Your task to perform on an android device: Open Amazon Image 0: 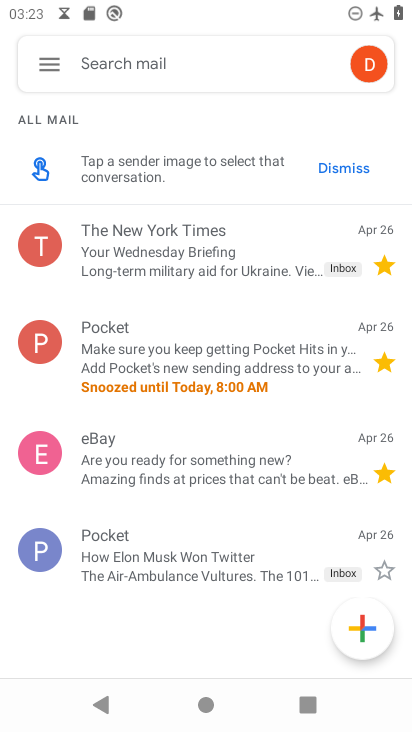
Step 0: press home button
Your task to perform on an android device: Open Amazon Image 1: 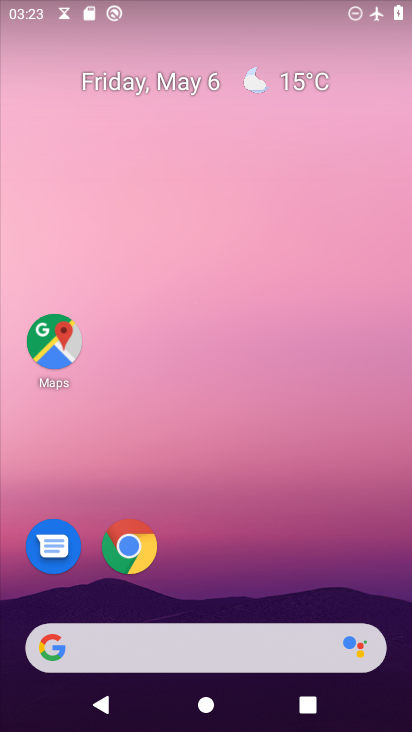
Step 1: click (137, 545)
Your task to perform on an android device: Open Amazon Image 2: 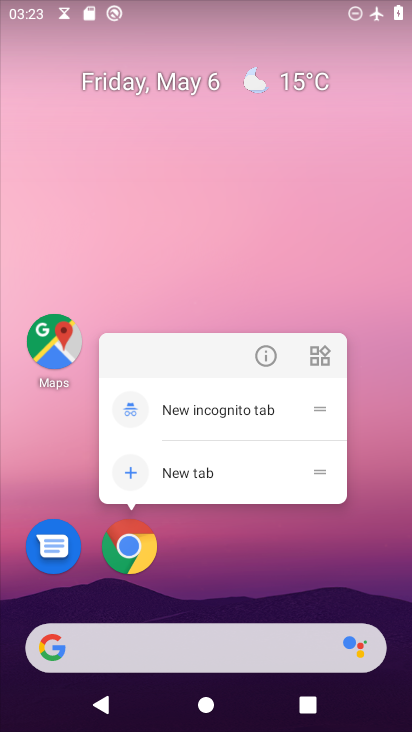
Step 2: click (137, 568)
Your task to perform on an android device: Open Amazon Image 3: 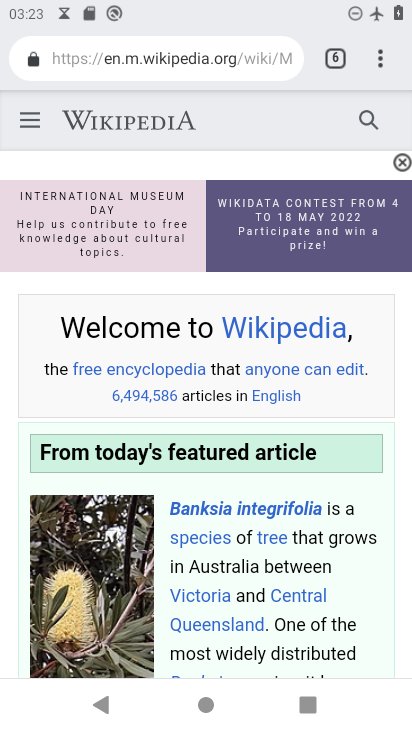
Step 3: click (349, 65)
Your task to perform on an android device: Open Amazon Image 4: 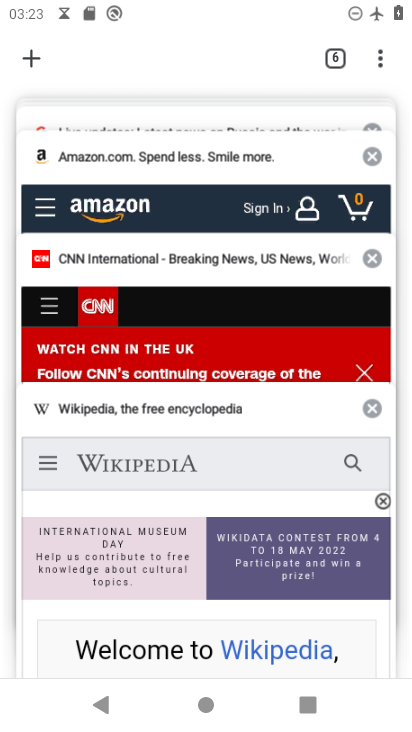
Step 4: click (211, 157)
Your task to perform on an android device: Open Amazon Image 5: 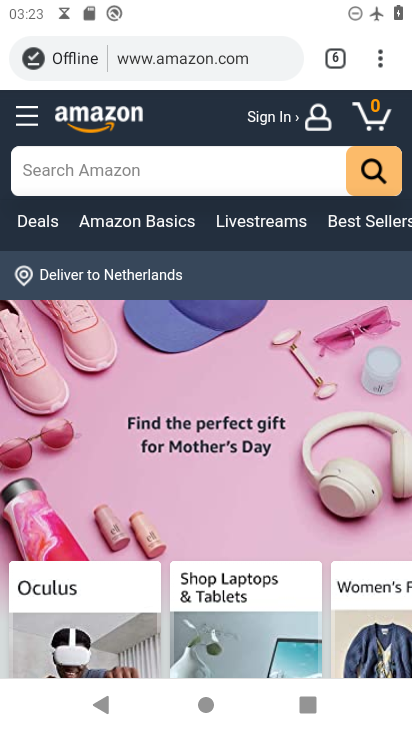
Step 5: task complete